Your task to perform on an android device: What's the weather like in London? Image 0: 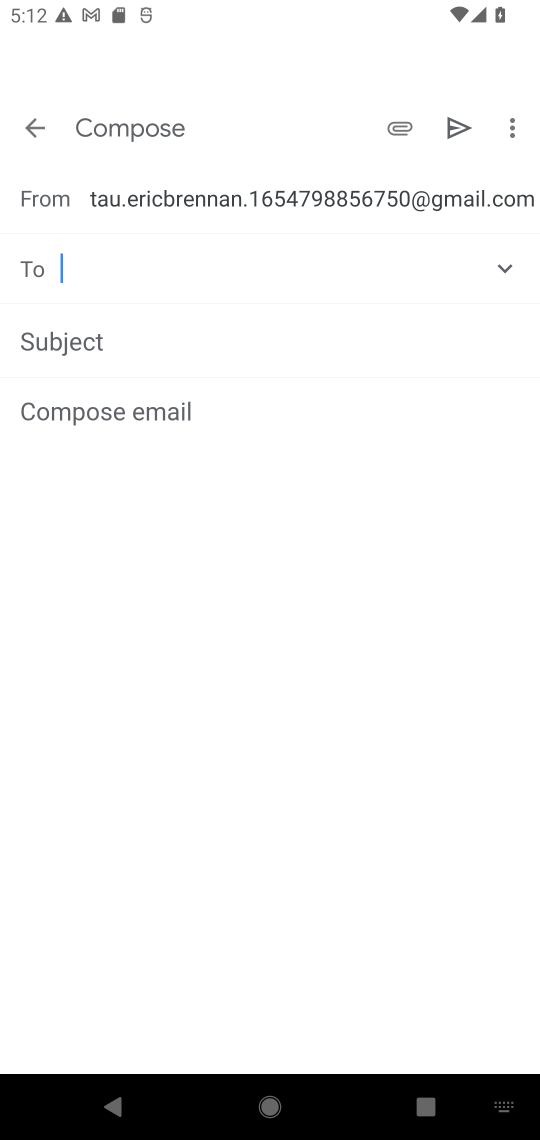
Step 0: press home button
Your task to perform on an android device: What's the weather like in London? Image 1: 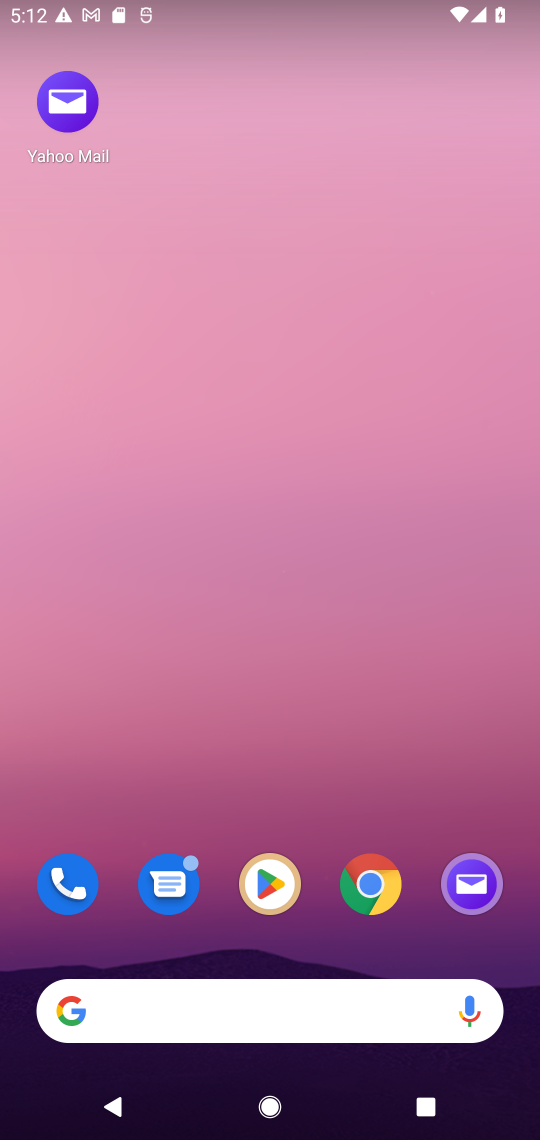
Step 1: drag from (273, 893) to (233, 81)
Your task to perform on an android device: What's the weather like in London? Image 2: 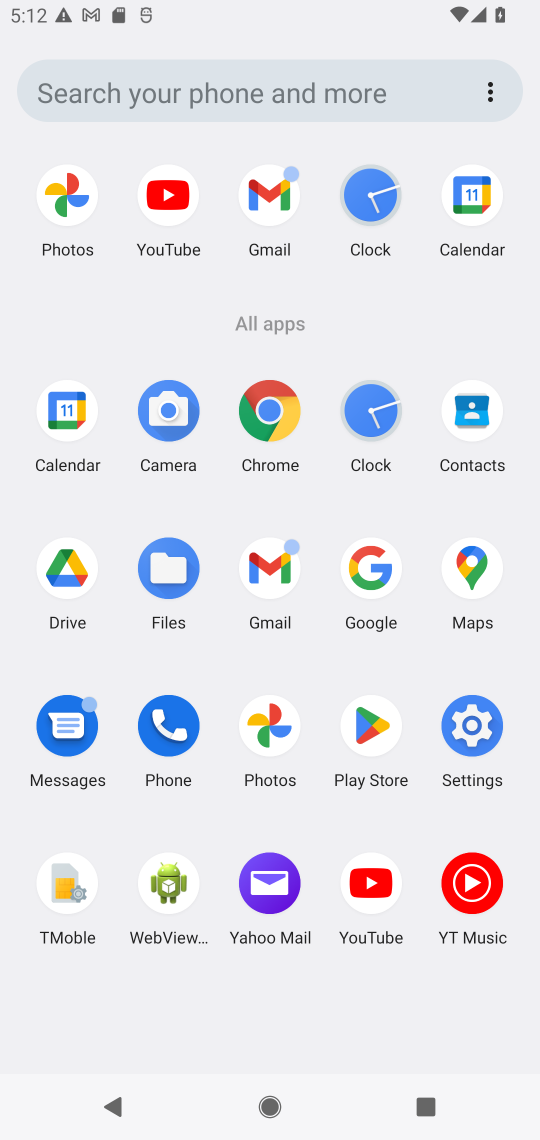
Step 2: click (365, 573)
Your task to perform on an android device: What's the weather like in London? Image 3: 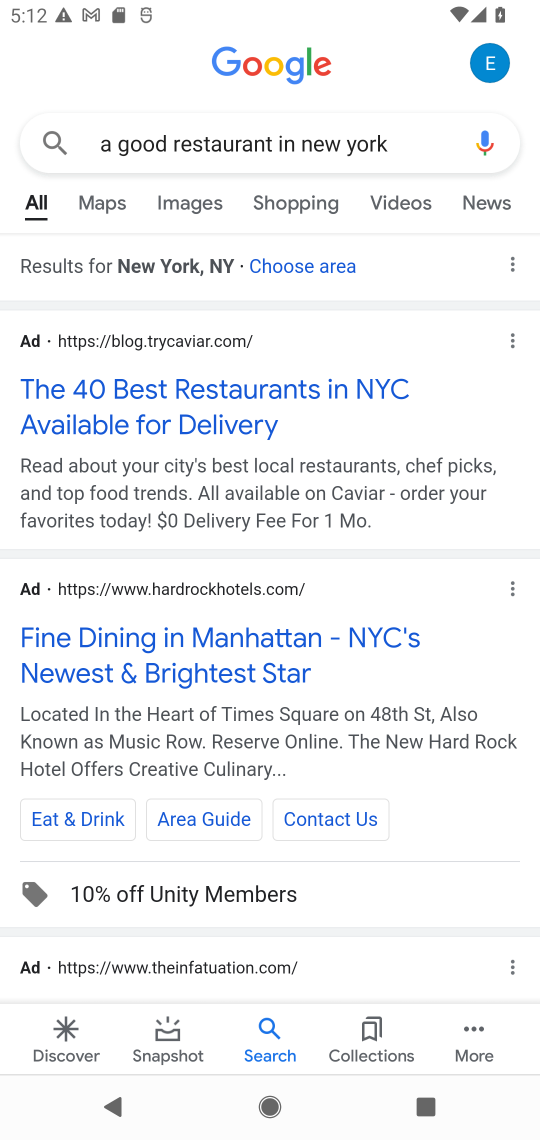
Step 3: click (392, 143)
Your task to perform on an android device: What's the weather like in London? Image 4: 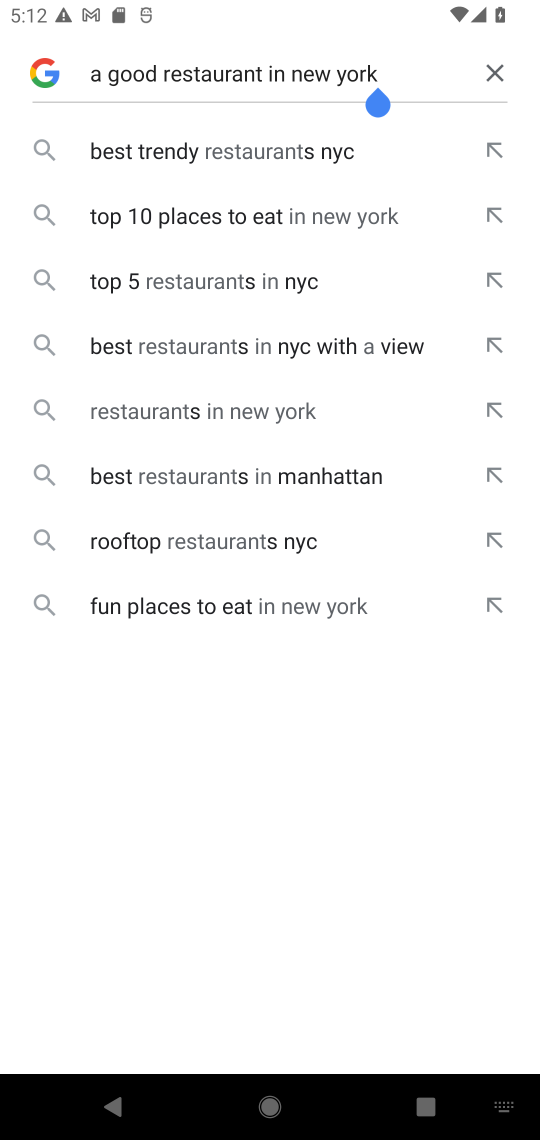
Step 4: click (488, 65)
Your task to perform on an android device: What's the weather like in London? Image 5: 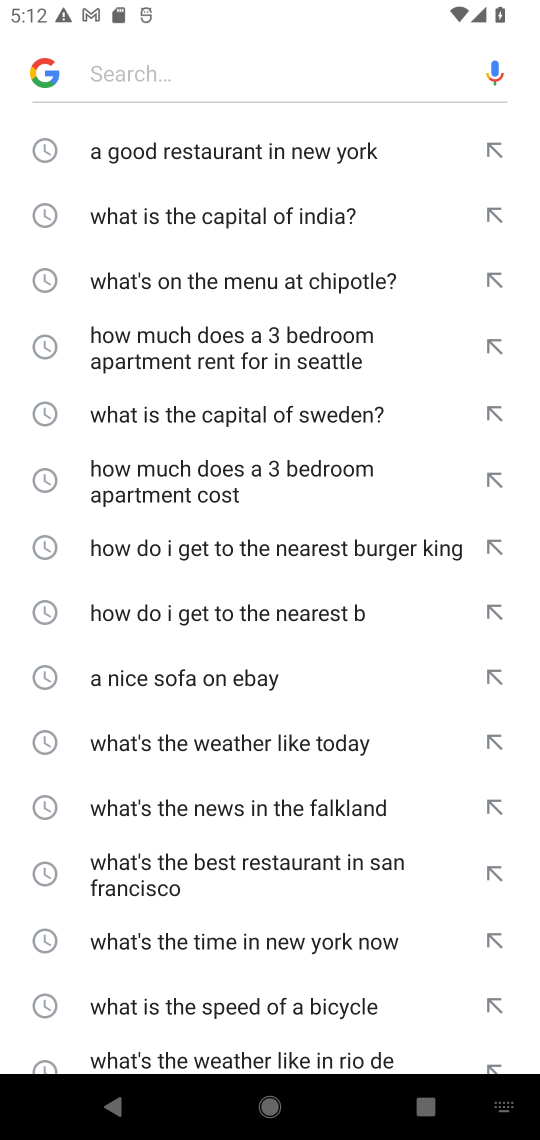
Step 5: type "What's the weather like in London?"
Your task to perform on an android device: What's the weather like in London? Image 6: 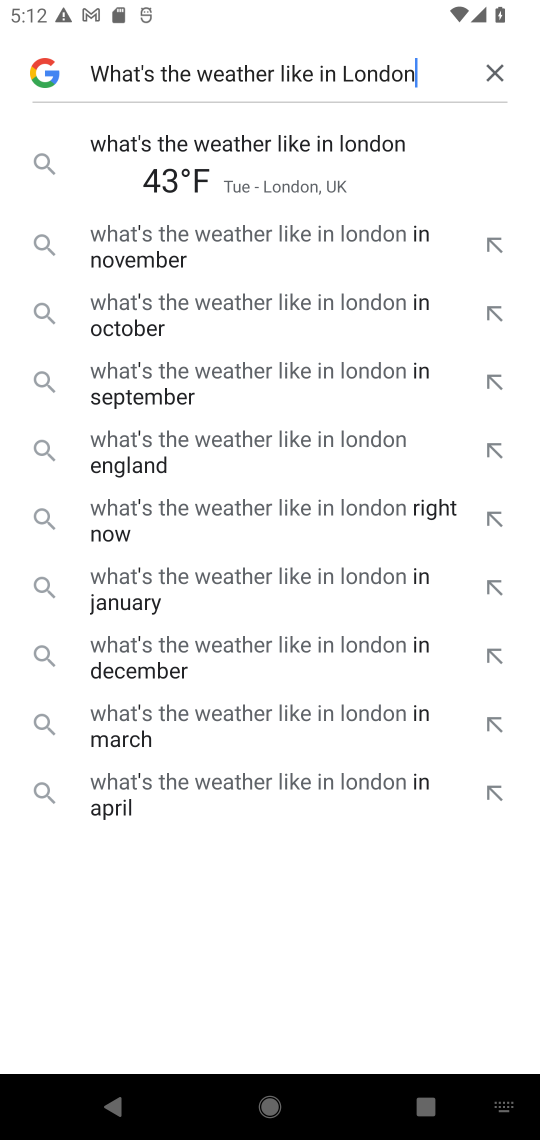
Step 6: type ""
Your task to perform on an android device: What's the weather like in London? Image 7: 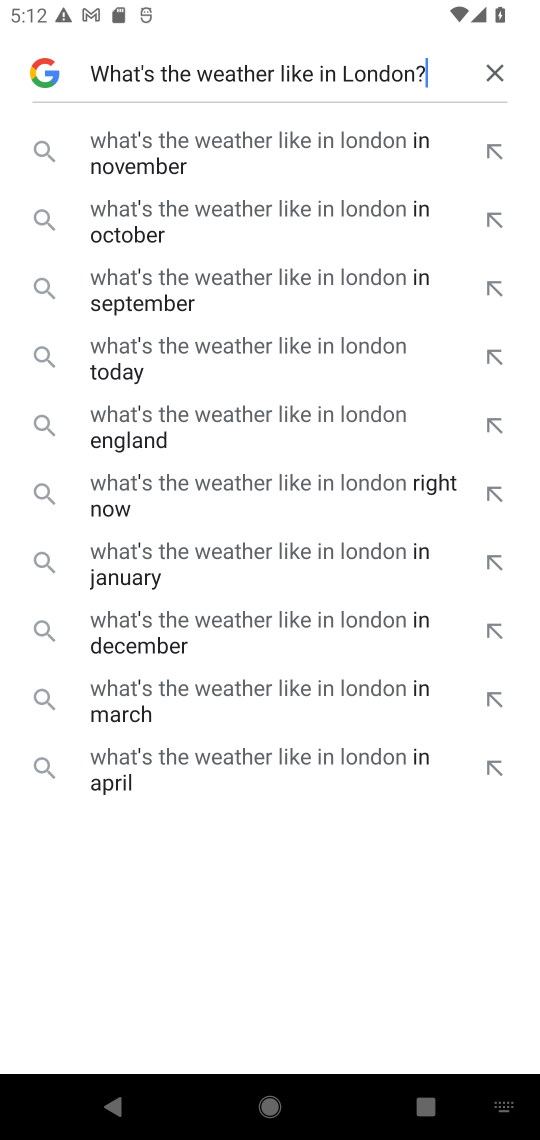
Step 7: click (262, 353)
Your task to perform on an android device: What's the weather like in London? Image 8: 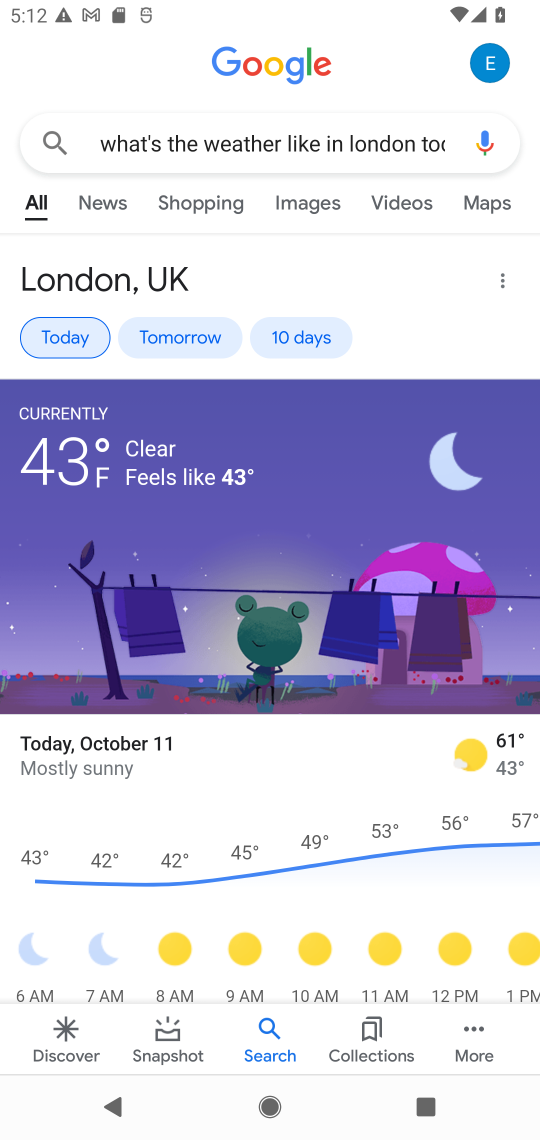
Step 8: task complete